Your task to perform on an android device: Search for the new nike air max shoes on Nike. Image 0: 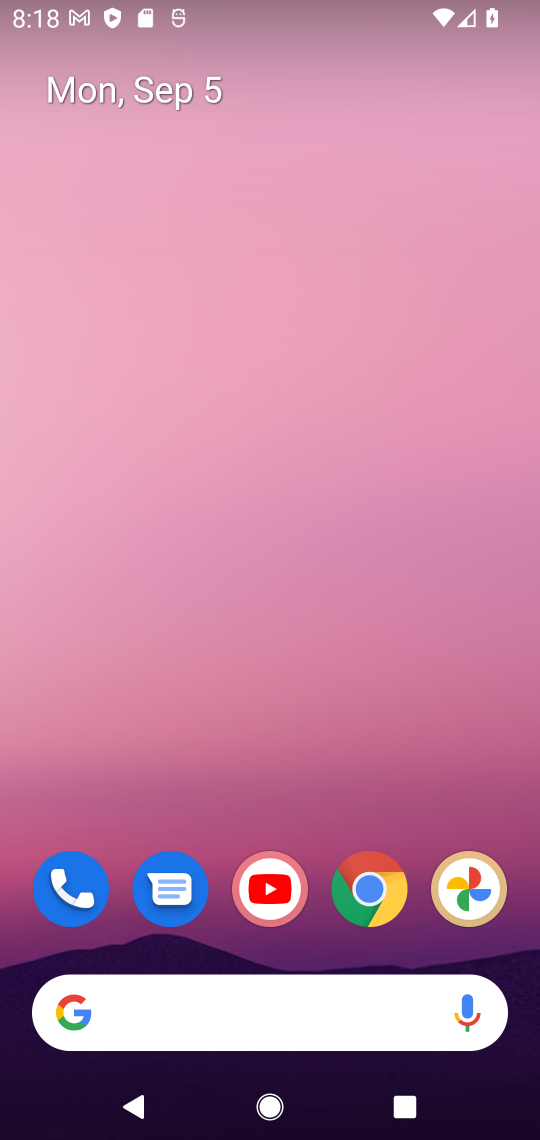
Step 0: click (298, 1006)
Your task to perform on an android device: Search for the new nike air max shoes on Nike. Image 1: 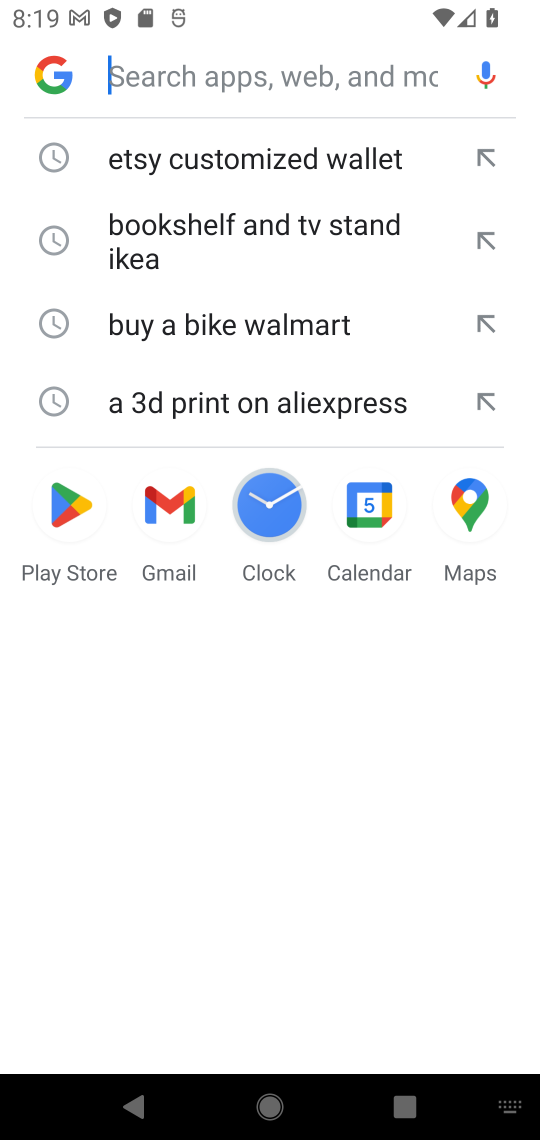
Step 1: type "the new nike air max shoes on Nike."
Your task to perform on an android device: Search for the new nike air max shoes on Nike. Image 2: 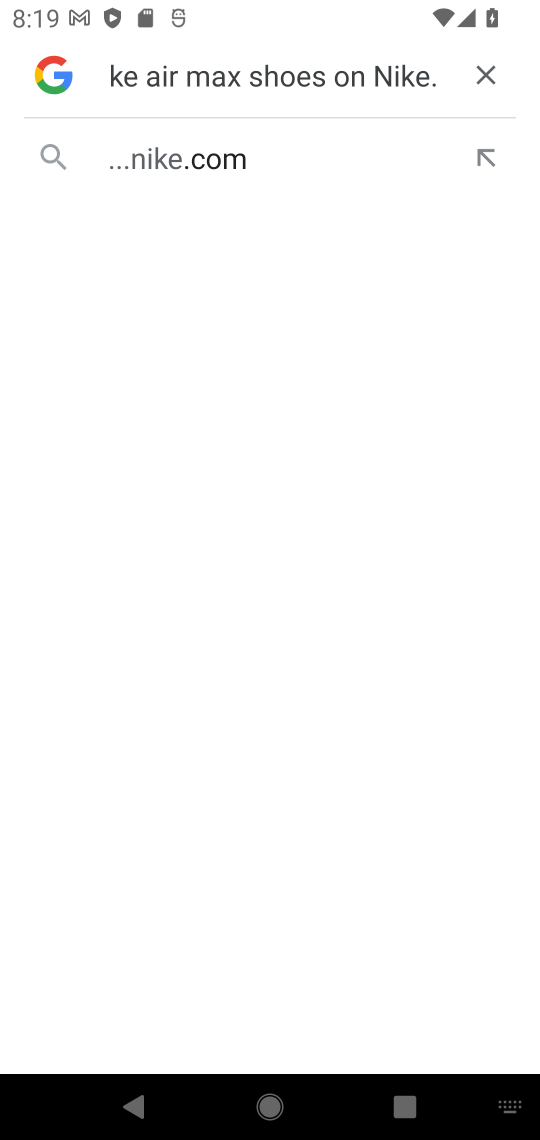
Step 2: click (161, 173)
Your task to perform on an android device: Search for the new nike air max shoes on Nike. Image 3: 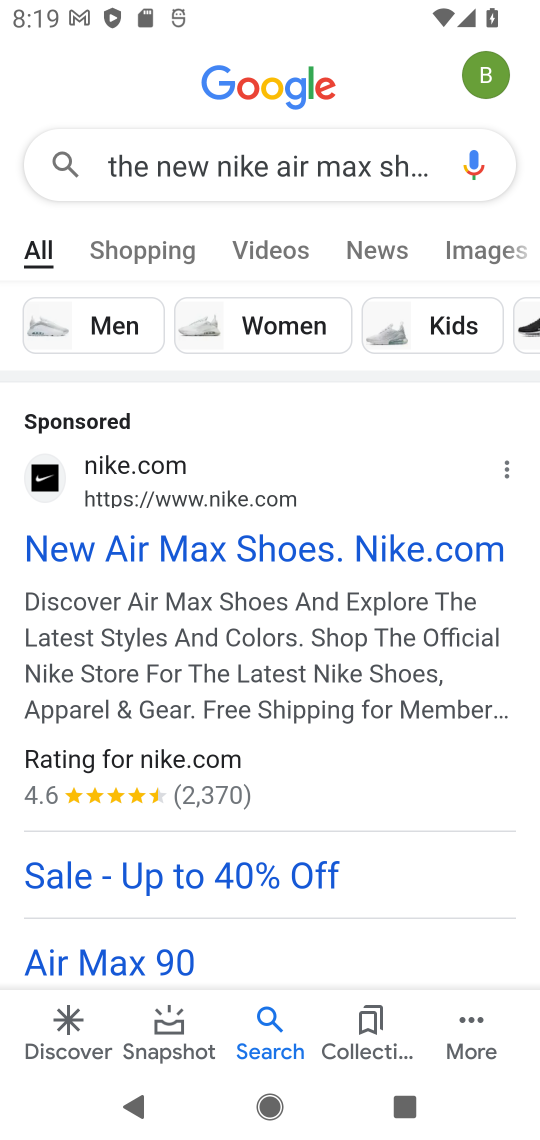
Step 3: task complete